Your task to perform on an android device: turn on improve location accuracy Image 0: 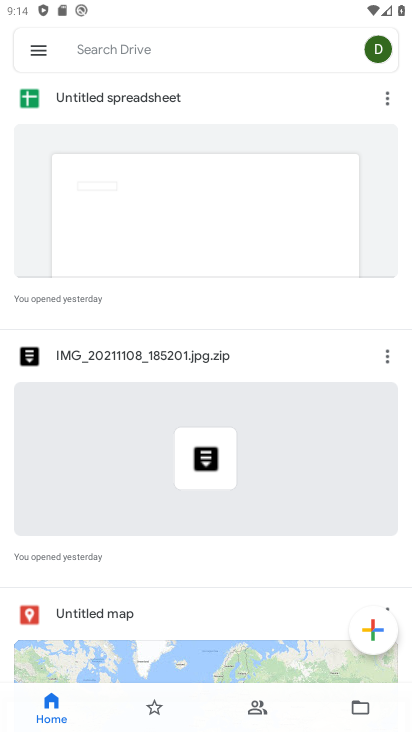
Step 0: press home button
Your task to perform on an android device: turn on improve location accuracy Image 1: 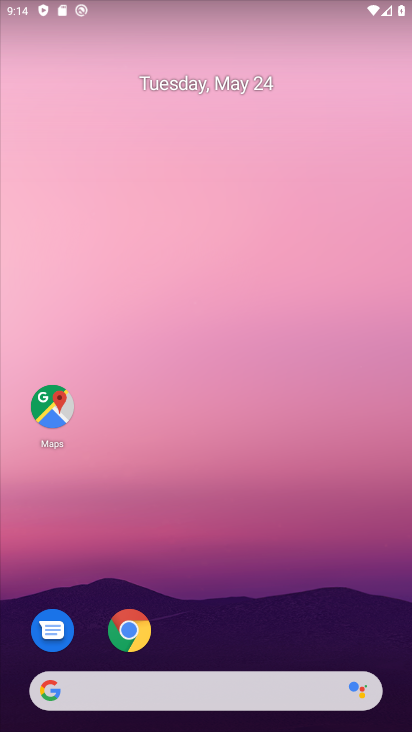
Step 1: drag from (232, 647) to (232, 79)
Your task to perform on an android device: turn on improve location accuracy Image 2: 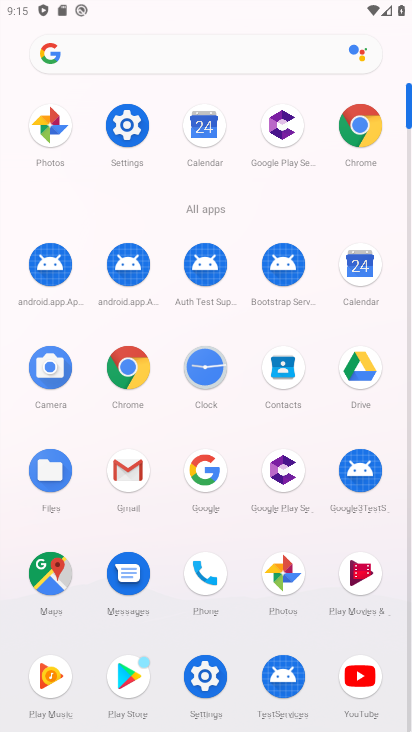
Step 2: click (124, 113)
Your task to perform on an android device: turn on improve location accuracy Image 3: 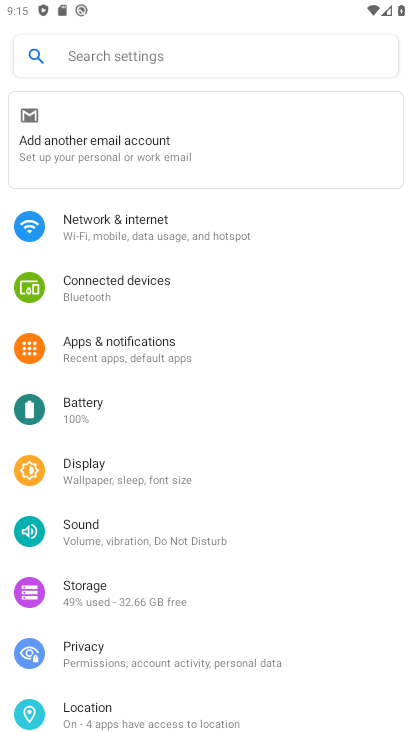
Step 3: click (133, 705)
Your task to perform on an android device: turn on improve location accuracy Image 4: 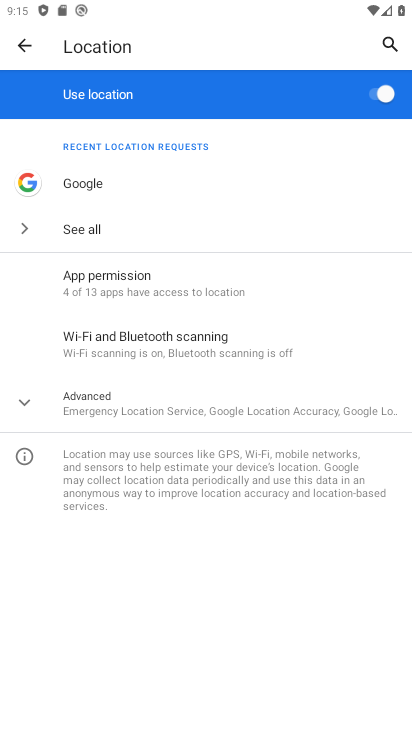
Step 4: click (16, 406)
Your task to perform on an android device: turn on improve location accuracy Image 5: 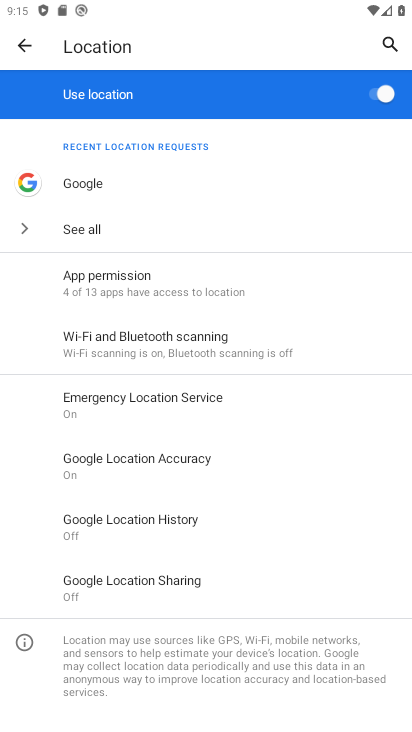
Step 5: click (150, 468)
Your task to perform on an android device: turn on improve location accuracy Image 6: 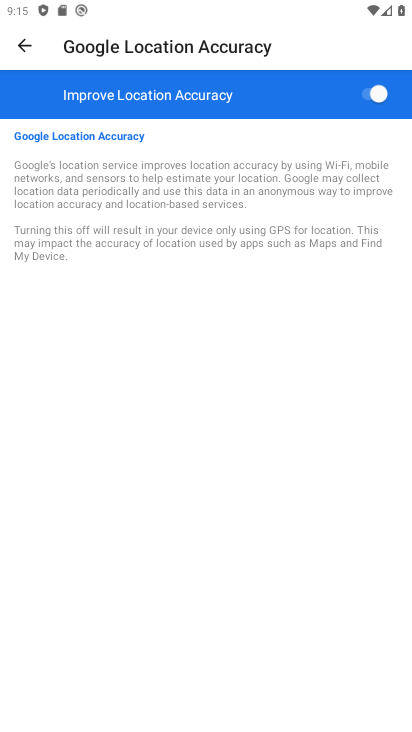
Step 6: task complete